Your task to perform on an android device: Go to Google Image 0: 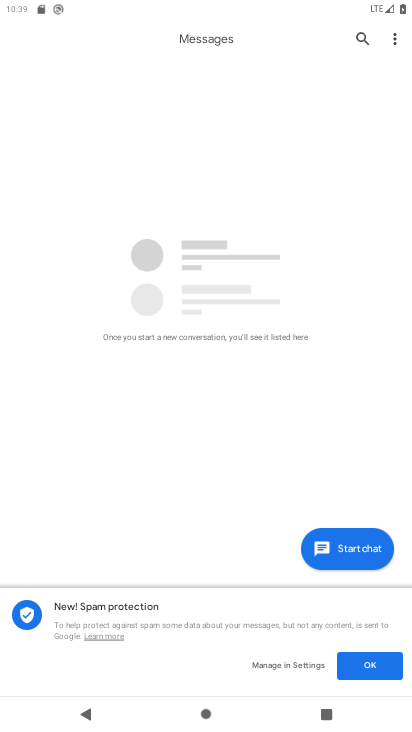
Step 0: press home button
Your task to perform on an android device: Go to Google Image 1: 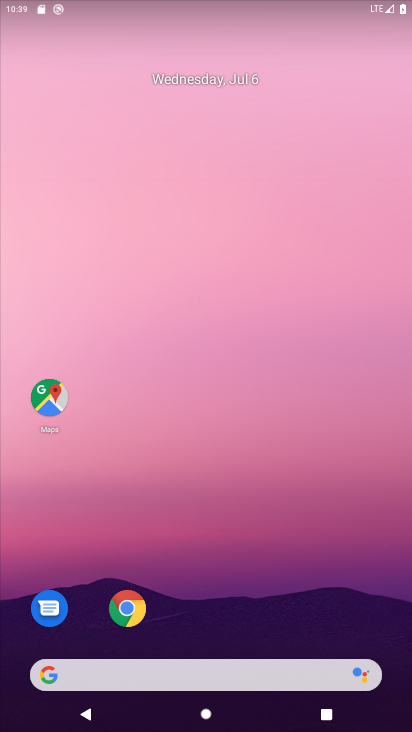
Step 1: drag from (191, 622) to (279, 88)
Your task to perform on an android device: Go to Google Image 2: 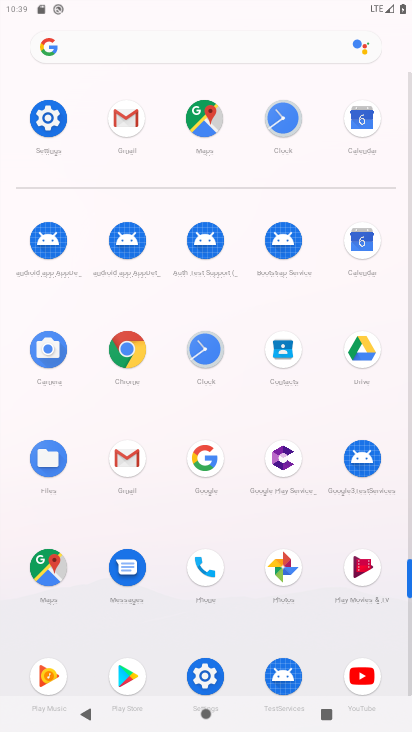
Step 2: click (159, 49)
Your task to perform on an android device: Go to Google Image 3: 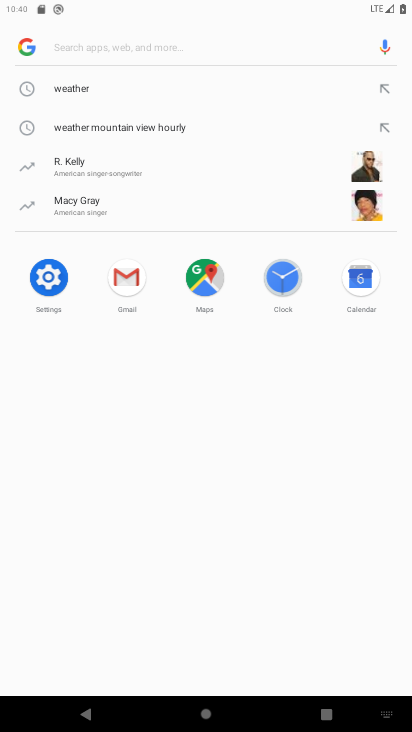
Step 3: click (21, 39)
Your task to perform on an android device: Go to Google Image 4: 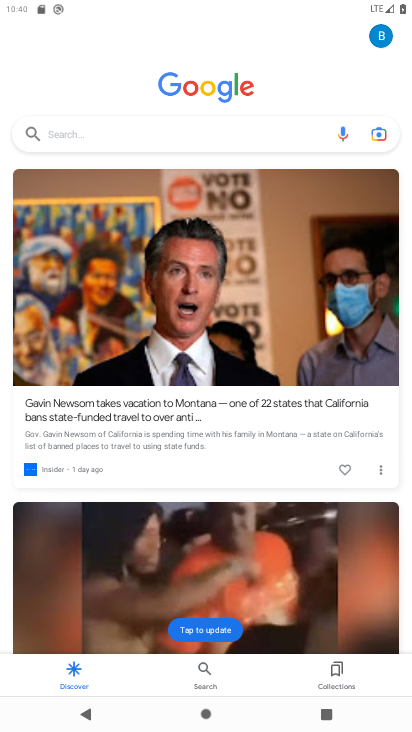
Step 4: task complete